Your task to perform on an android device: remove spam from my inbox in the gmail app Image 0: 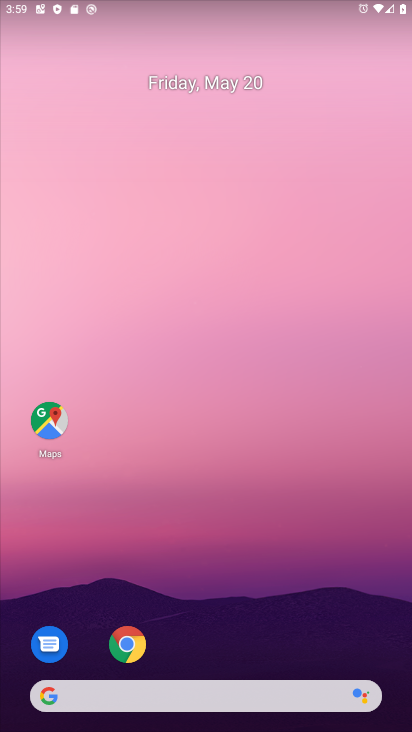
Step 0: drag from (323, 601) to (324, 98)
Your task to perform on an android device: remove spam from my inbox in the gmail app Image 1: 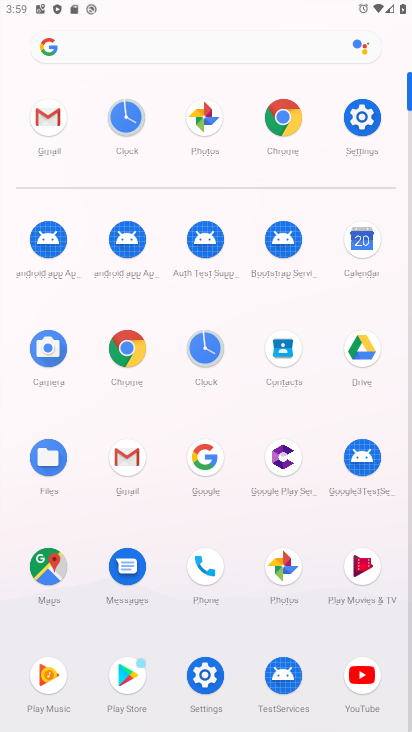
Step 1: click (48, 134)
Your task to perform on an android device: remove spam from my inbox in the gmail app Image 2: 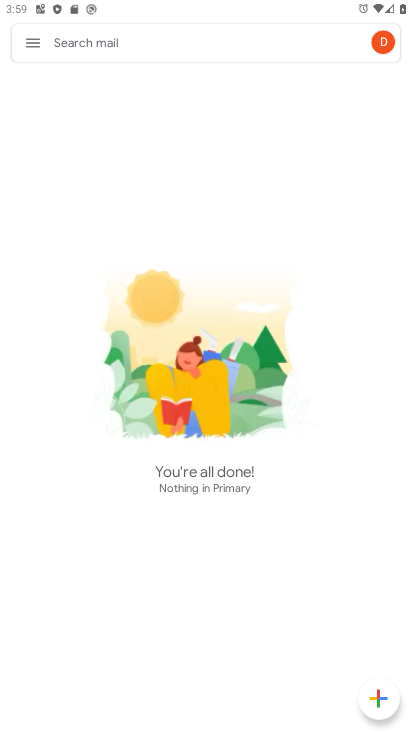
Step 2: click (43, 31)
Your task to perform on an android device: remove spam from my inbox in the gmail app Image 3: 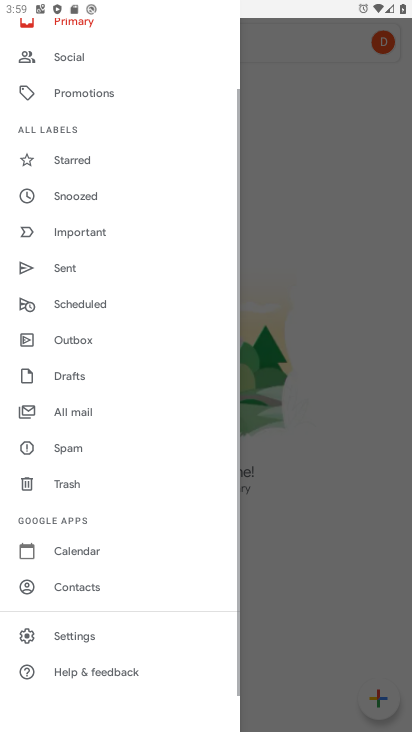
Step 3: click (81, 405)
Your task to perform on an android device: remove spam from my inbox in the gmail app Image 4: 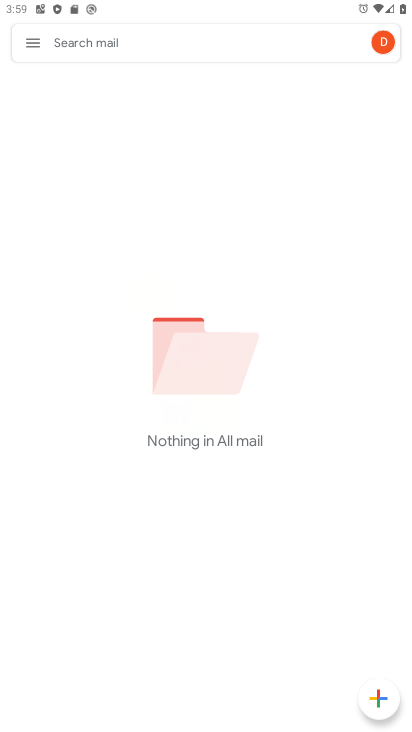
Step 4: task complete